Your task to perform on an android device: change the upload size in google photos Image 0: 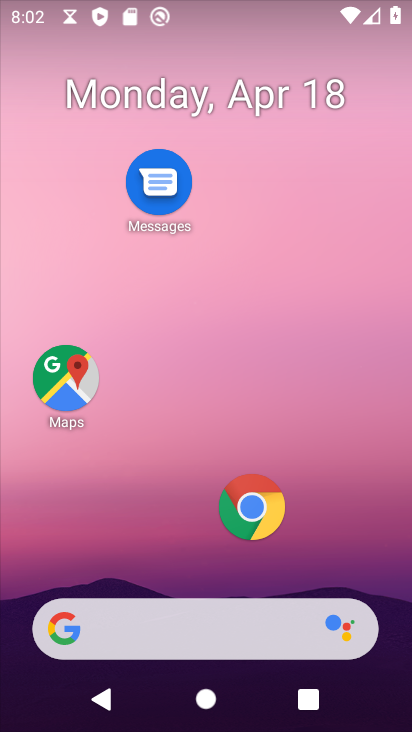
Step 0: drag from (199, 566) to (189, 224)
Your task to perform on an android device: change the upload size in google photos Image 1: 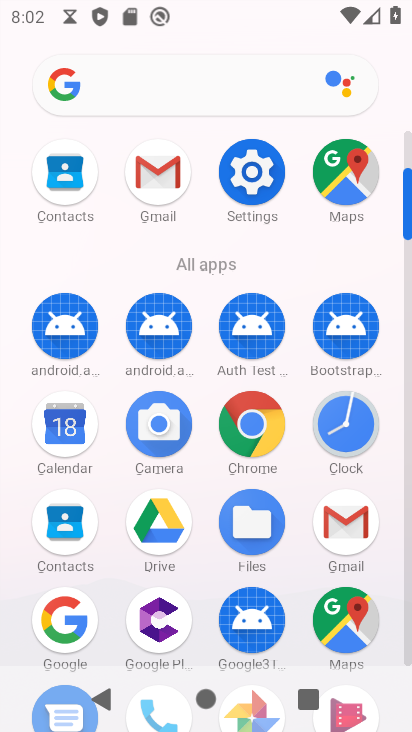
Step 1: drag from (271, 641) to (251, 242)
Your task to perform on an android device: change the upload size in google photos Image 2: 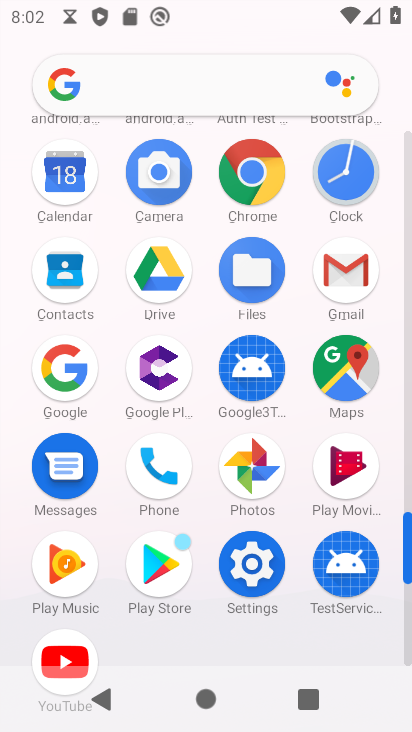
Step 2: click (248, 464)
Your task to perform on an android device: change the upload size in google photos Image 3: 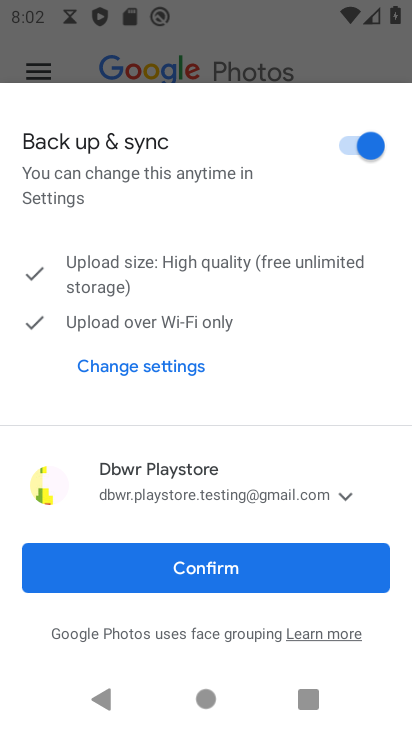
Step 3: click (225, 567)
Your task to perform on an android device: change the upload size in google photos Image 4: 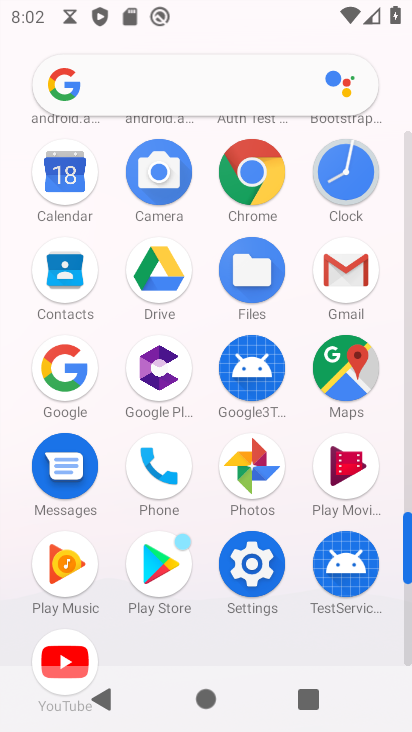
Step 4: click (240, 471)
Your task to perform on an android device: change the upload size in google photos Image 5: 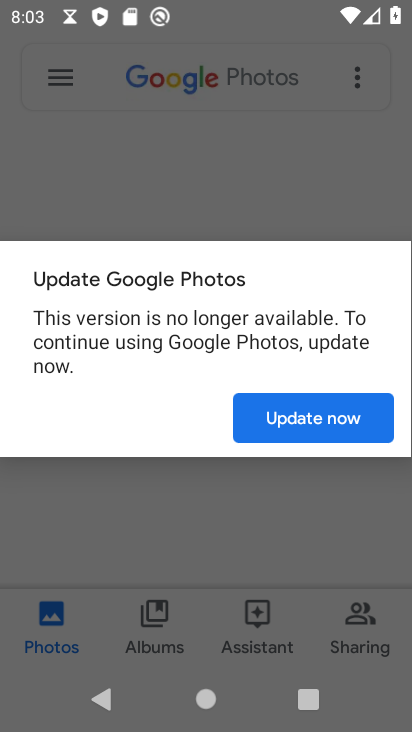
Step 5: click (44, 77)
Your task to perform on an android device: change the upload size in google photos Image 6: 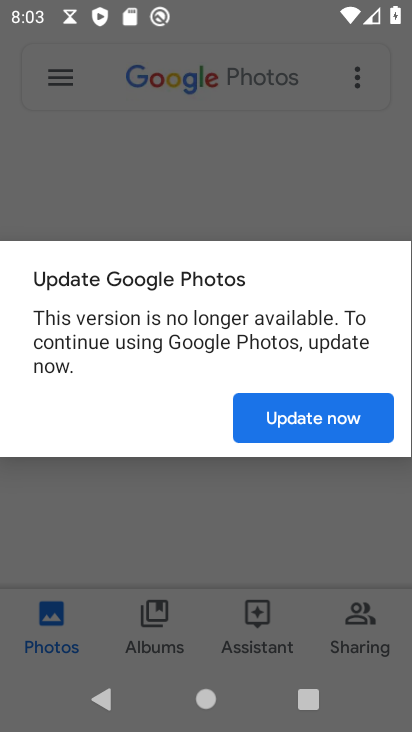
Step 6: click (346, 420)
Your task to perform on an android device: change the upload size in google photos Image 7: 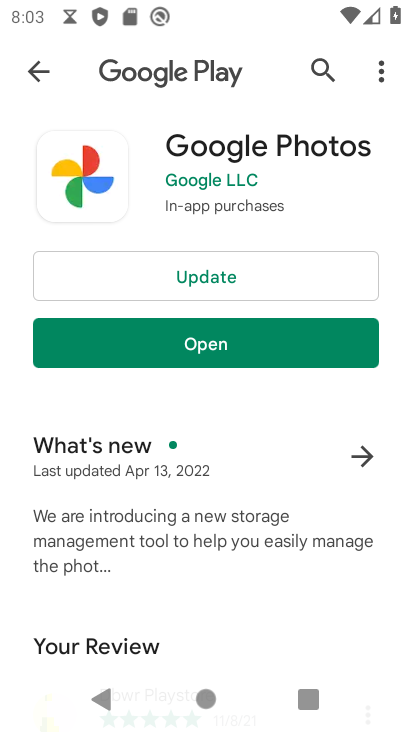
Step 7: click (201, 345)
Your task to perform on an android device: change the upload size in google photos Image 8: 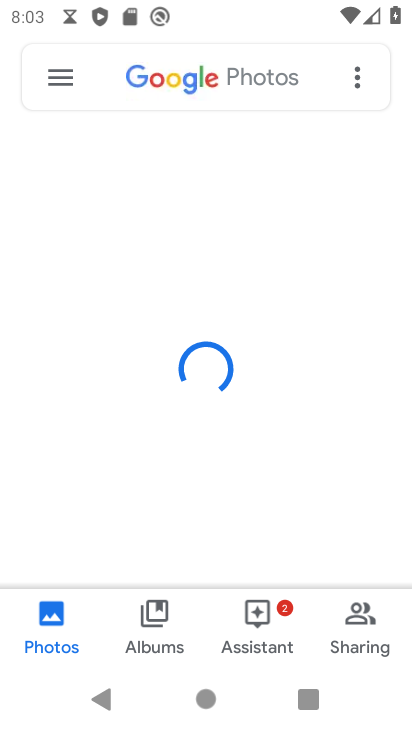
Step 8: click (50, 81)
Your task to perform on an android device: change the upload size in google photos Image 9: 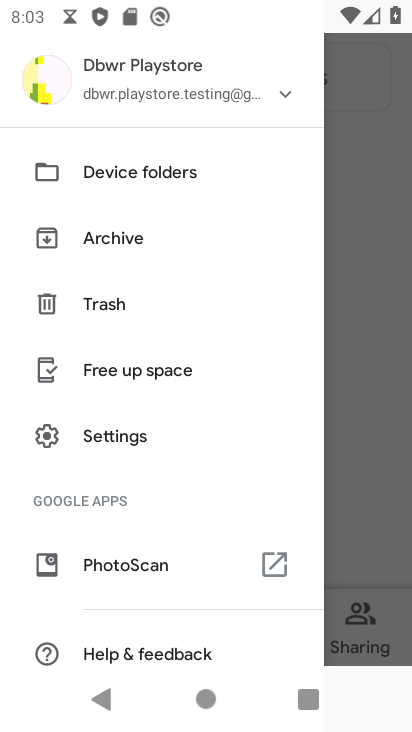
Step 9: click (118, 434)
Your task to perform on an android device: change the upload size in google photos Image 10: 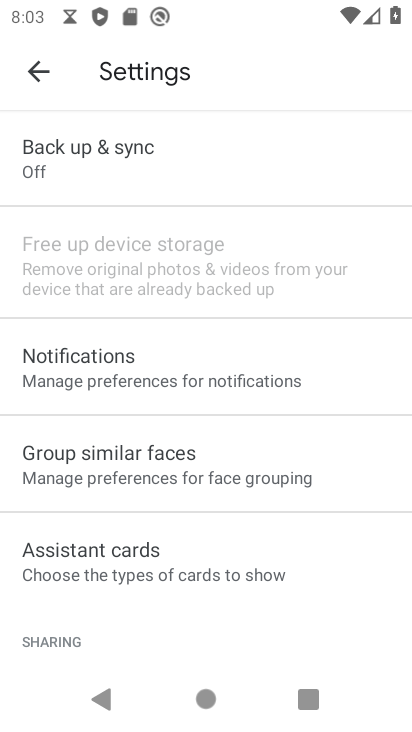
Step 10: click (62, 148)
Your task to perform on an android device: change the upload size in google photos Image 11: 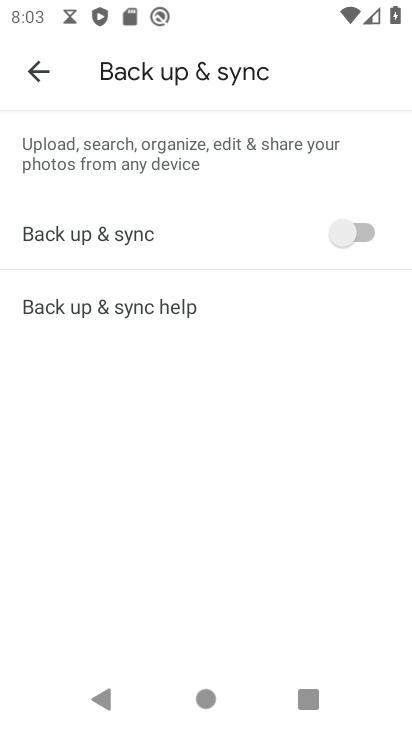
Step 11: click (361, 231)
Your task to perform on an android device: change the upload size in google photos Image 12: 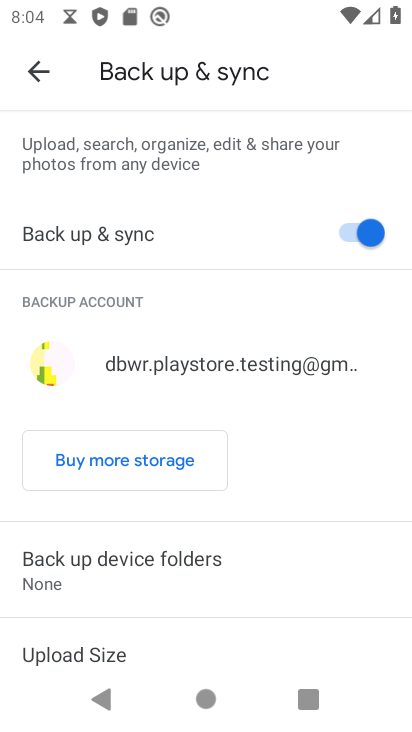
Step 12: drag from (106, 525) to (104, 361)
Your task to perform on an android device: change the upload size in google photos Image 13: 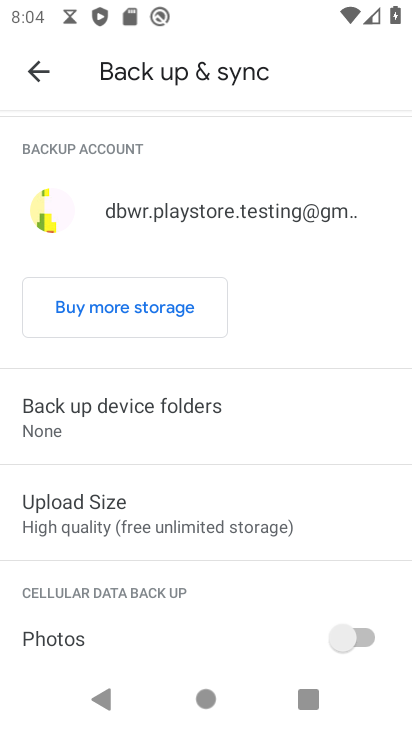
Step 13: click (89, 515)
Your task to perform on an android device: change the upload size in google photos Image 14: 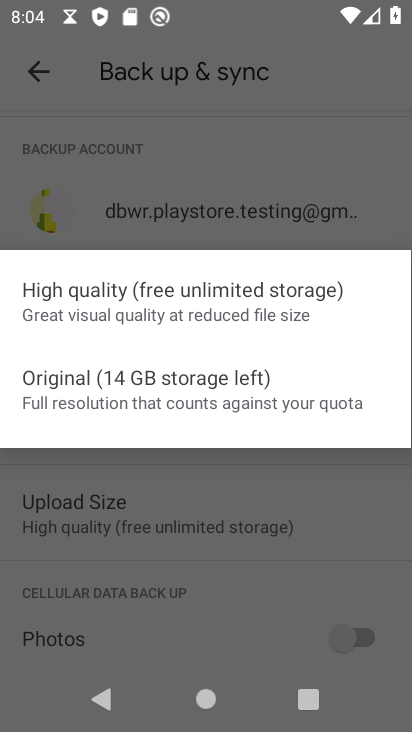
Step 14: click (76, 388)
Your task to perform on an android device: change the upload size in google photos Image 15: 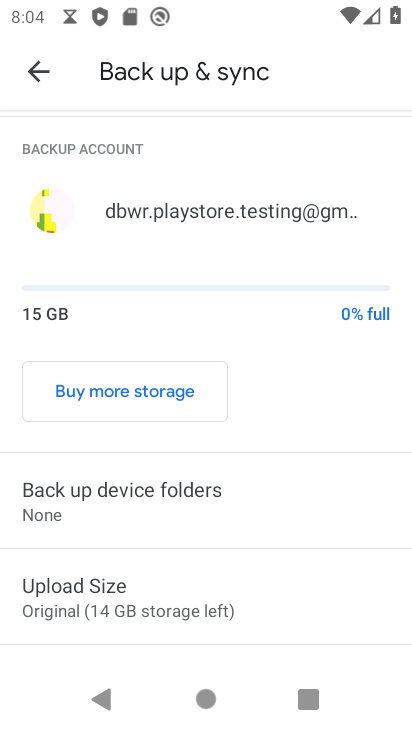
Step 15: task complete